Your task to perform on an android device: toggle notifications settings in the gmail app Image 0: 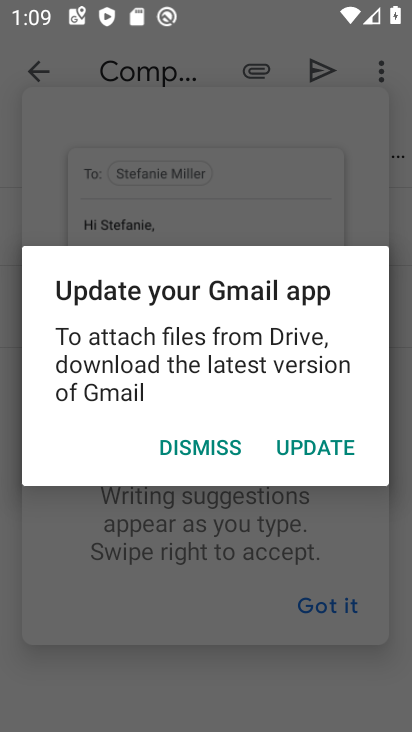
Step 0: press home button
Your task to perform on an android device: toggle notifications settings in the gmail app Image 1: 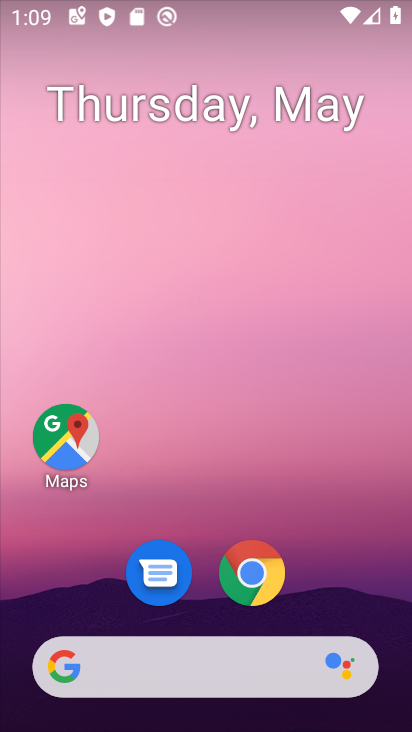
Step 1: drag from (270, 650) to (169, 5)
Your task to perform on an android device: toggle notifications settings in the gmail app Image 2: 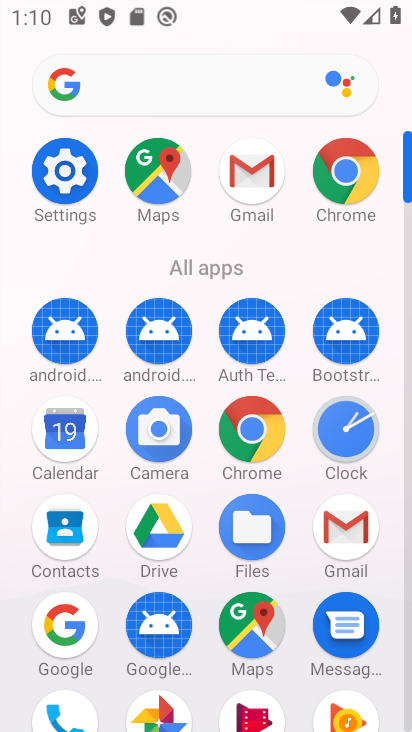
Step 2: click (277, 184)
Your task to perform on an android device: toggle notifications settings in the gmail app Image 3: 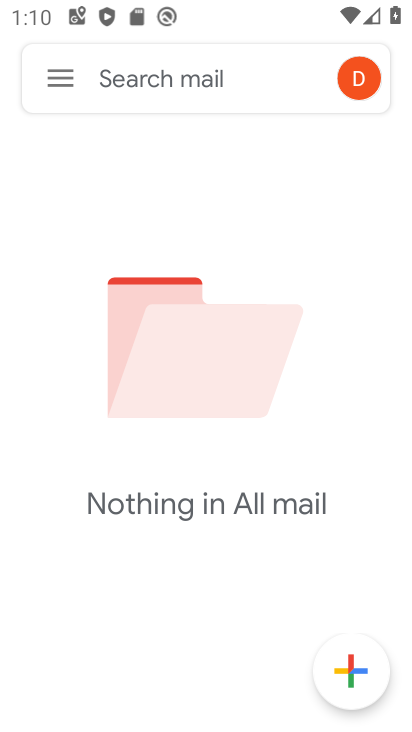
Step 3: click (68, 85)
Your task to perform on an android device: toggle notifications settings in the gmail app Image 4: 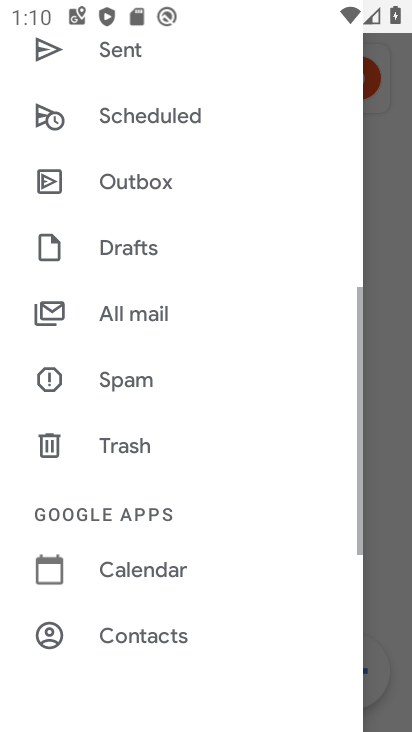
Step 4: drag from (124, 597) to (105, 3)
Your task to perform on an android device: toggle notifications settings in the gmail app Image 5: 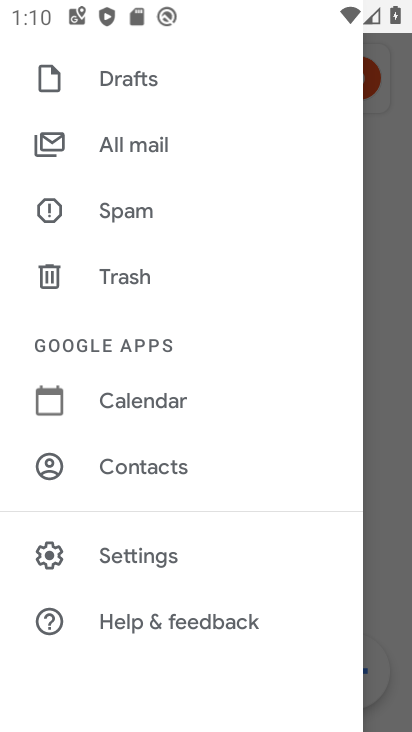
Step 5: click (148, 555)
Your task to perform on an android device: toggle notifications settings in the gmail app Image 6: 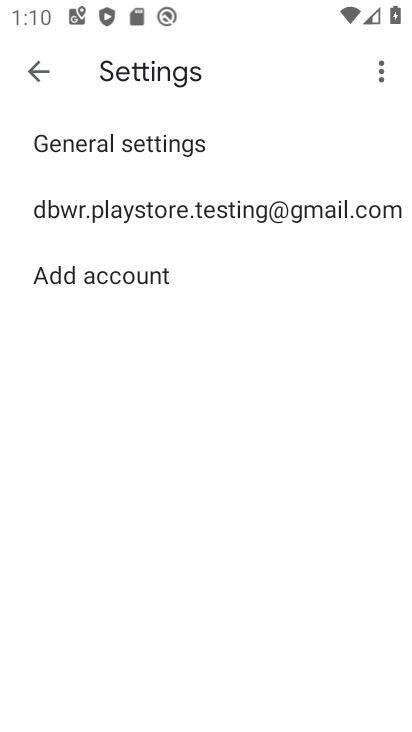
Step 6: click (288, 206)
Your task to perform on an android device: toggle notifications settings in the gmail app Image 7: 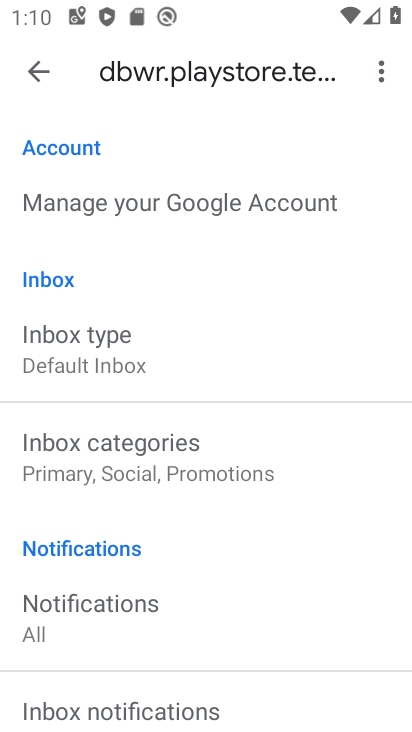
Step 7: drag from (192, 625) to (272, 291)
Your task to perform on an android device: toggle notifications settings in the gmail app Image 8: 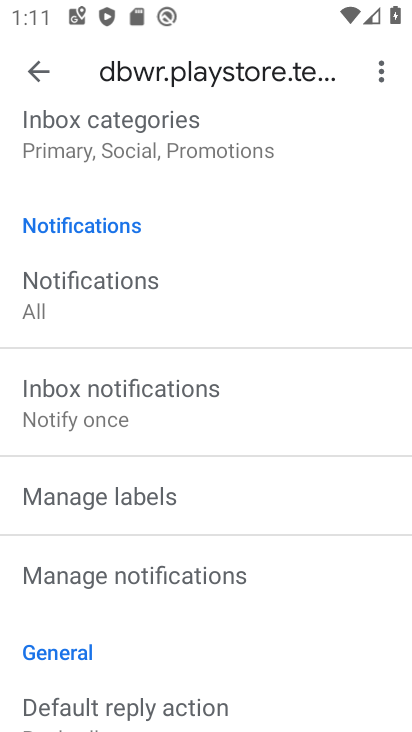
Step 8: click (196, 563)
Your task to perform on an android device: toggle notifications settings in the gmail app Image 9: 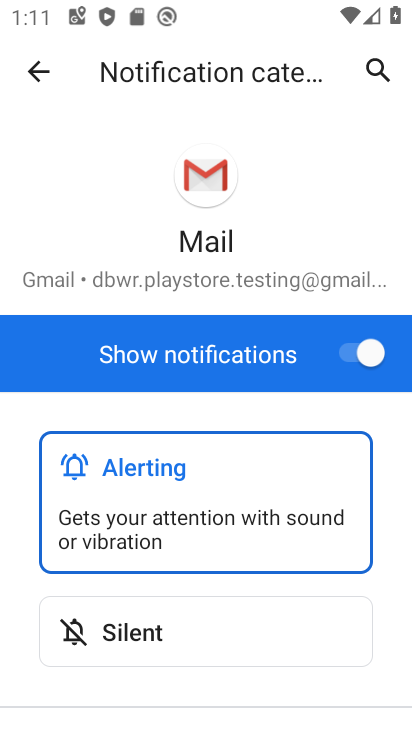
Step 9: click (346, 351)
Your task to perform on an android device: toggle notifications settings in the gmail app Image 10: 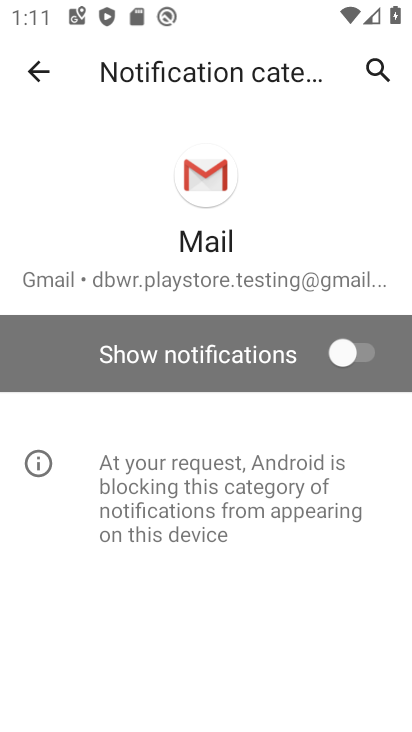
Step 10: task complete